Your task to perform on an android device: Open Google Chrome and open the bookmarks view Image 0: 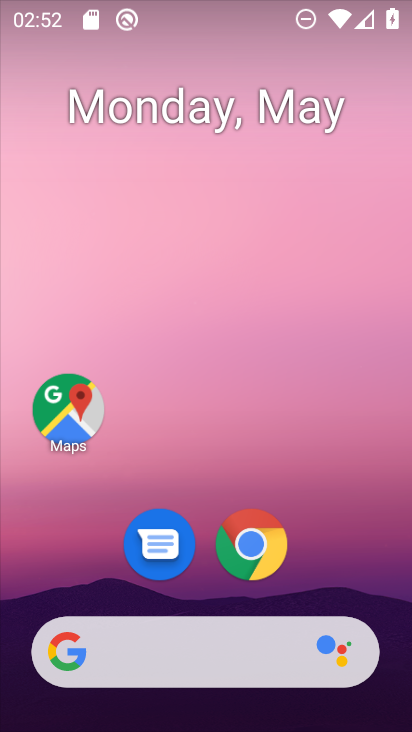
Step 0: drag from (353, 568) to (368, 246)
Your task to perform on an android device: Open Google Chrome and open the bookmarks view Image 1: 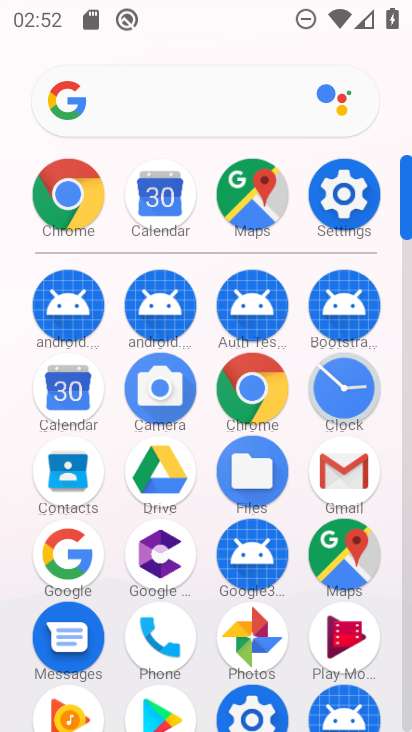
Step 1: click (270, 403)
Your task to perform on an android device: Open Google Chrome and open the bookmarks view Image 2: 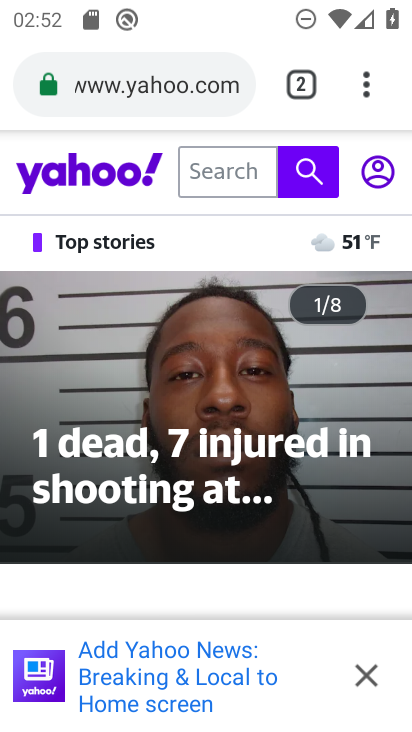
Step 2: click (365, 94)
Your task to perform on an android device: Open Google Chrome and open the bookmarks view Image 3: 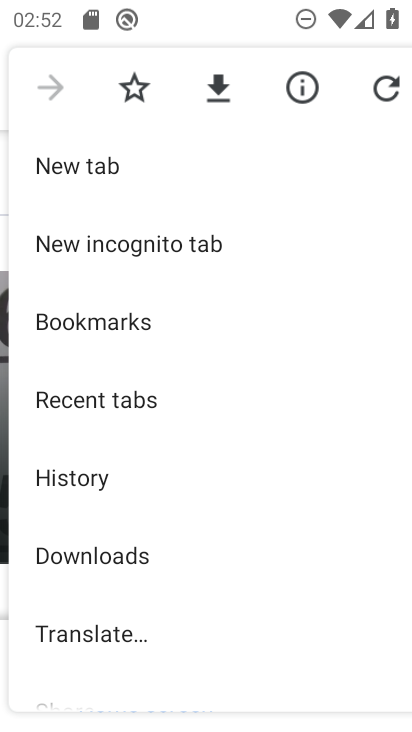
Step 3: click (146, 325)
Your task to perform on an android device: Open Google Chrome and open the bookmarks view Image 4: 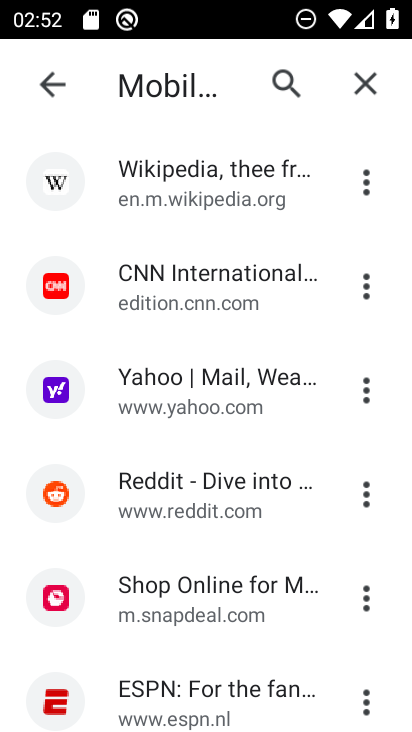
Step 4: task complete